Your task to perform on an android device: Show me productivity apps on the Play Store Image 0: 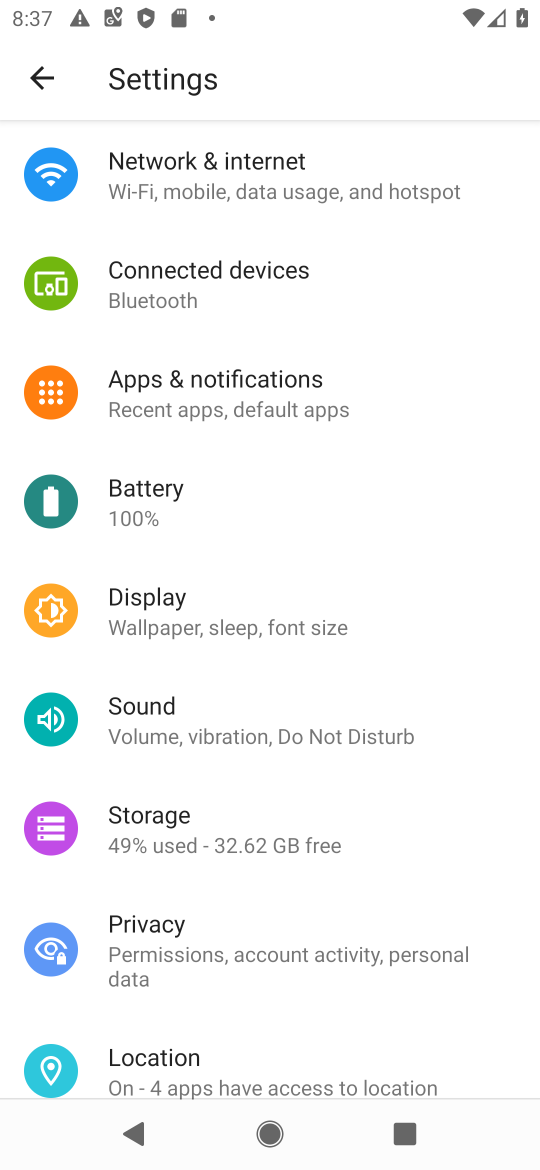
Step 0: press home button
Your task to perform on an android device: Show me productivity apps on the Play Store Image 1: 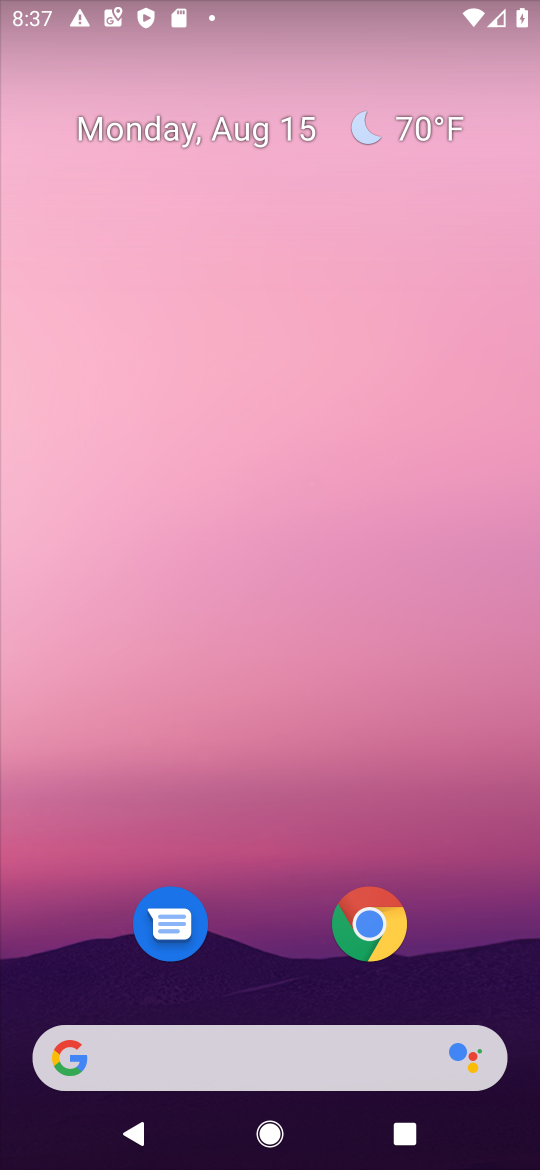
Step 1: drag from (493, 988) to (478, 156)
Your task to perform on an android device: Show me productivity apps on the Play Store Image 2: 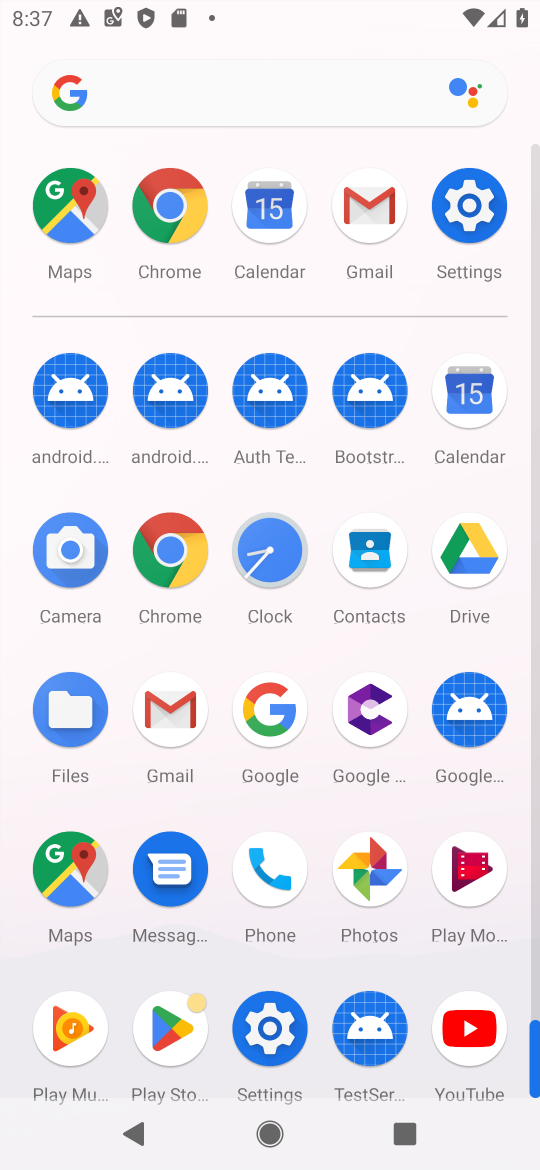
Step 2: click (173, 1026)
Your task to perform on an android device: Show me productivity apps on the Play Store Image 3: 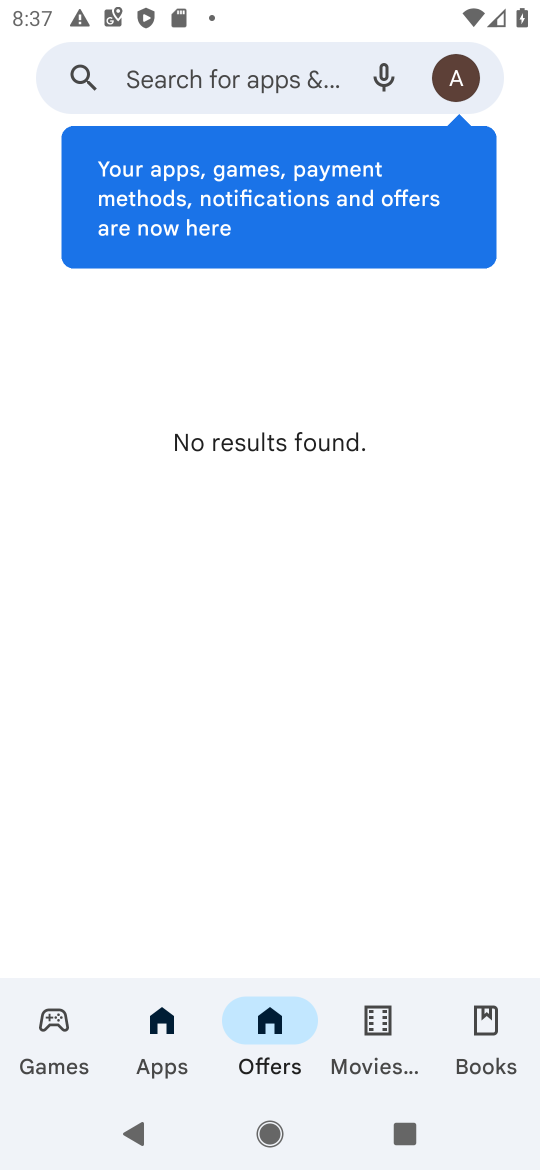
Step 3: click (140, 1041)
Your task to perform on an android device: Show me productivity apps on the Play Store Image 4: 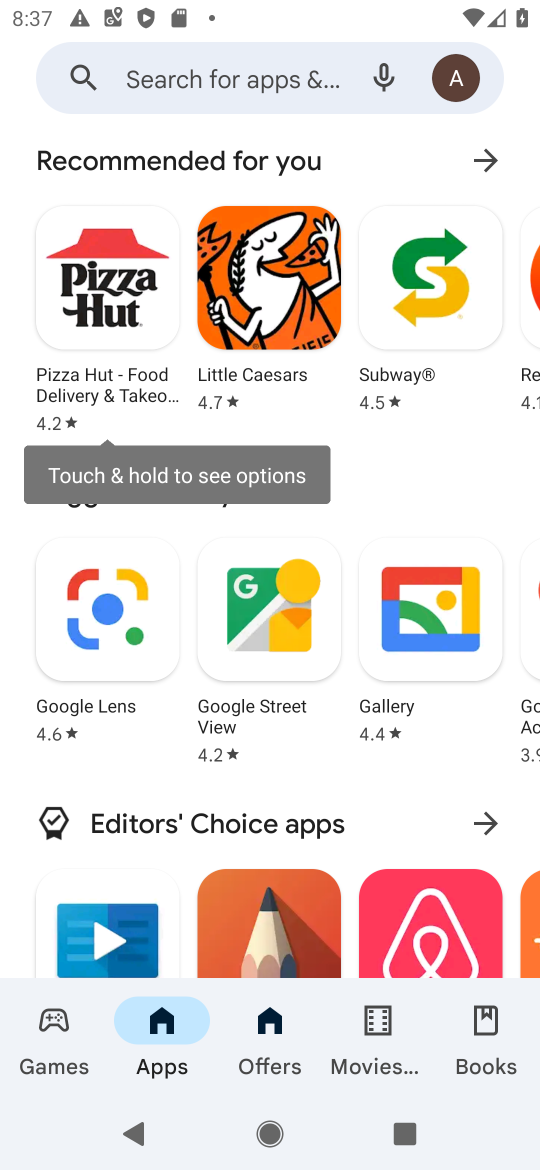
Step 4: drag from (353, 846) to (350, 939)
Your task to perform on an android device: Show me productivity apps on the Play Store Image 5: 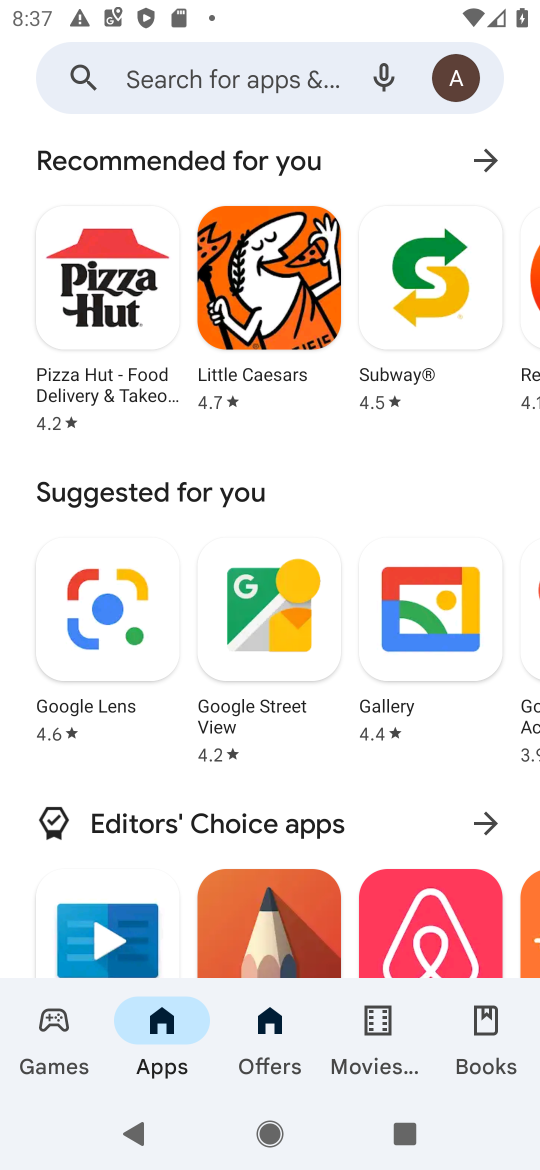
Step 5: drag from (361, 233) to (358, 540)
Your task to perform on an android device: Show me productivity apps on the Play Store Image 6: 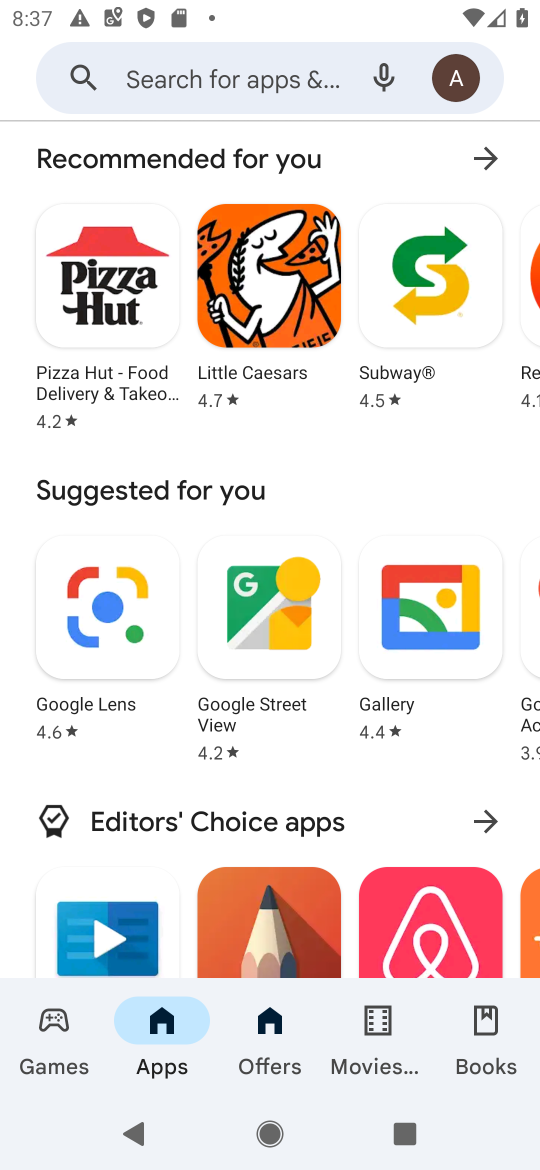
Step 6: drag from (340, 825) to (363, 322)
Your task to perform on an android device: Show me productivity apps on the Play Store Image 7: 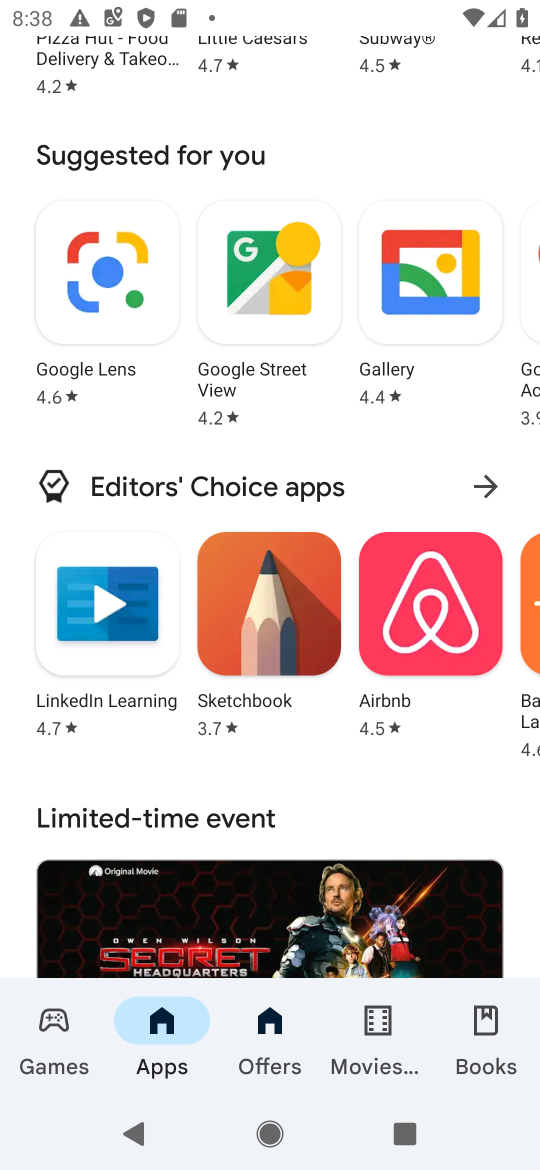
Step 7: drag from (334, 823) to (323, 144)
Your task to perform on an android device: Show me productivity apps on the Play Store Image 8: 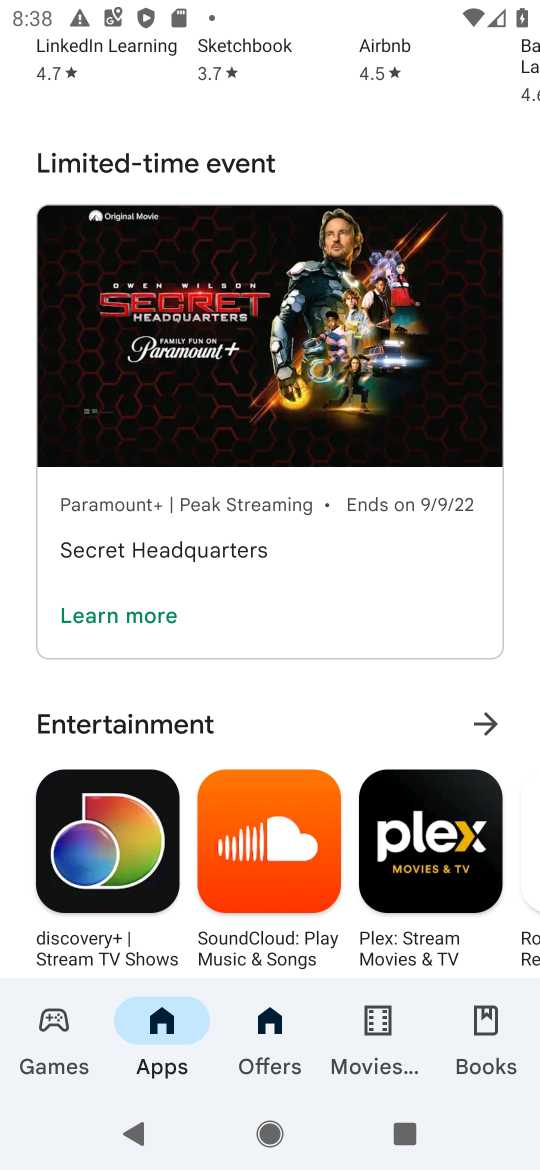
Step 8: drag from (353, 776) to (358, 86)
Your task to perform on an android device: Show me productivity apps on the Play Store Image 9: 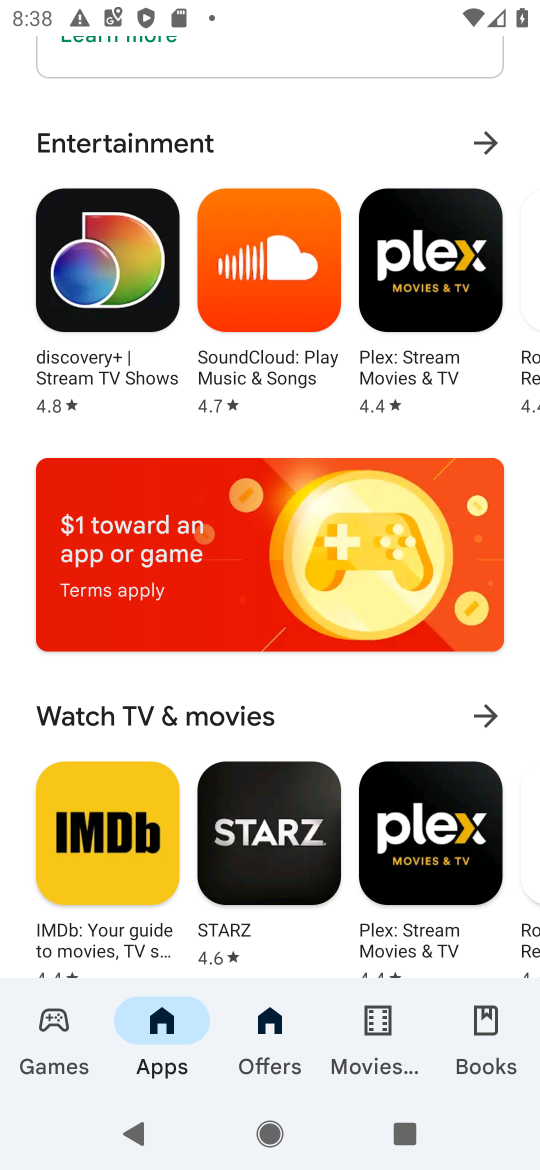
Step 9: drag from (348, 749) to (316, 148)
Your task to perform on an android device: Show me productivity apps on the Play Store Image 10: 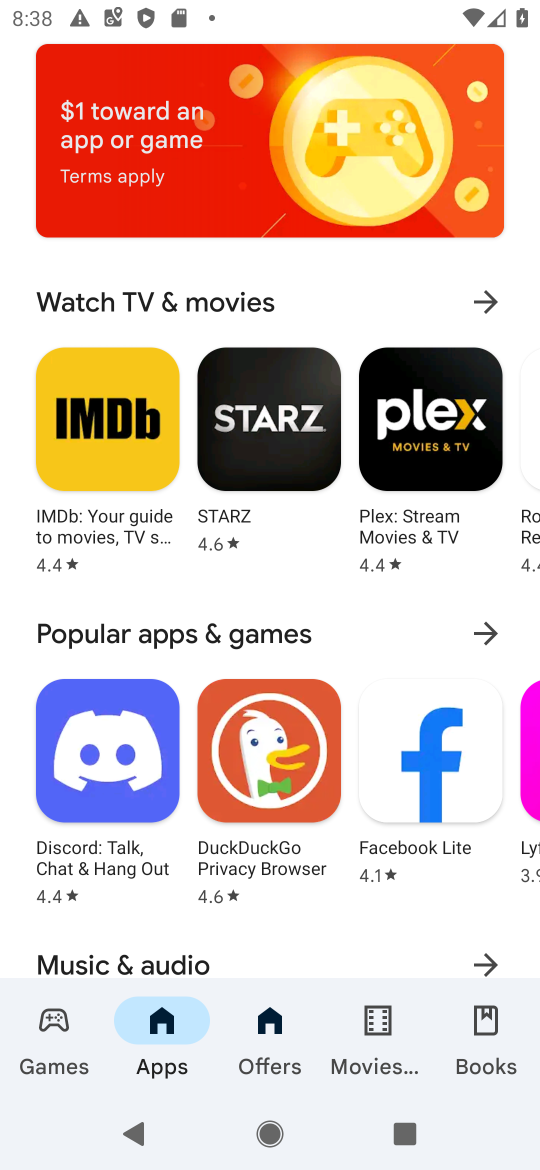
Step 10: drag from (353, 603) to (322, 148)
Your task to perform on an android device: Show me productivity apps on the Play Store Image 11: 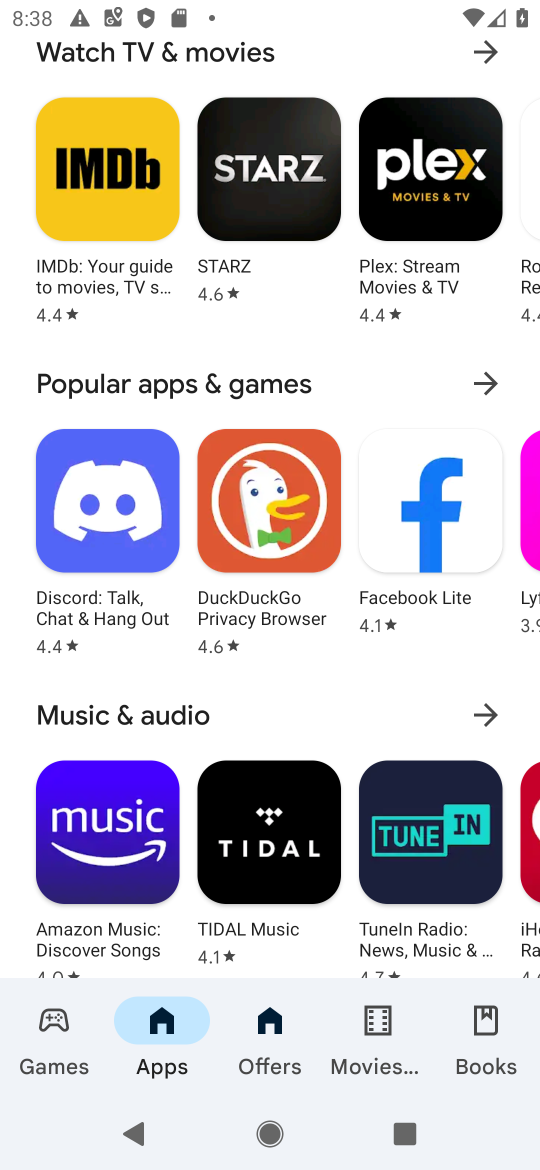
Step 11: drag from (352, 737) to (307, 218)
Your task to perform on an android device: Show me productivity apps on the Play Store Image 12: 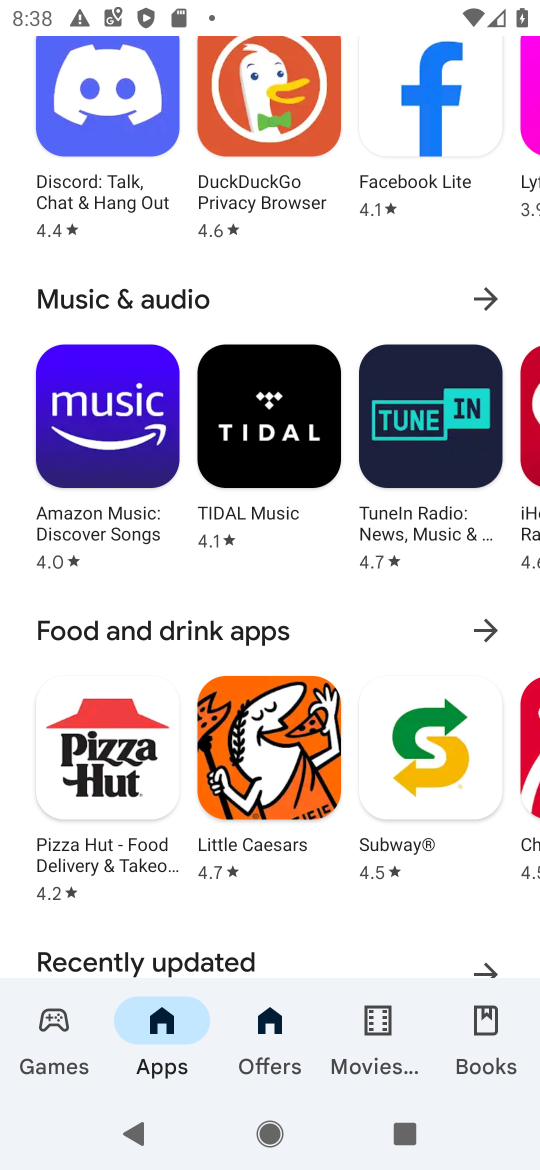
Step 12: drag from (350, 935) to (300, 504)
Your task to perform on an android device: Show me productivity apps on the Play Store Image 13: 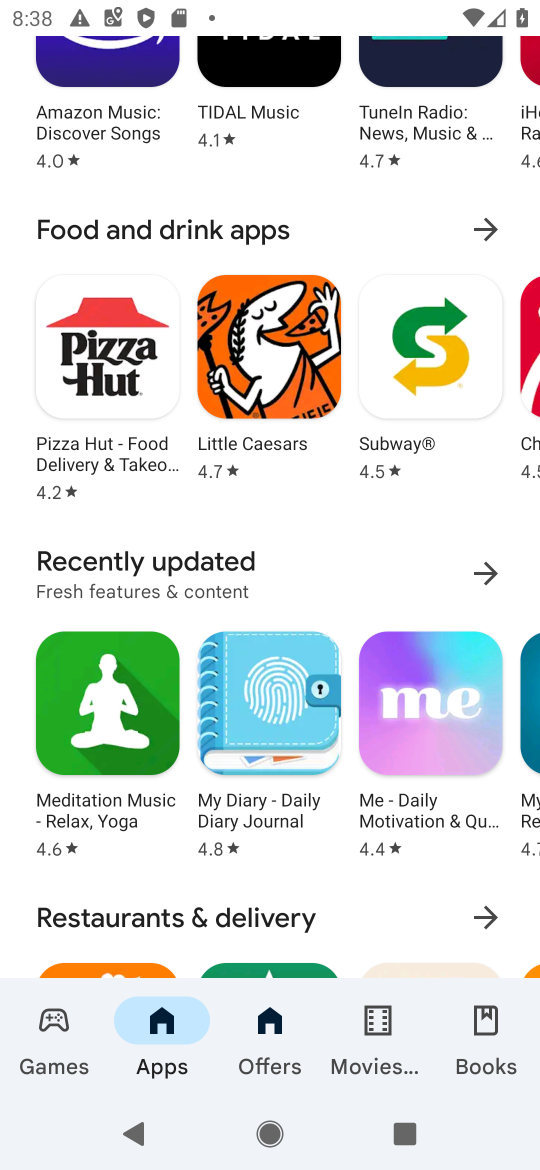
Step 13: drag from (349, 936) to (331, 195)
Your task to perform on an android device: Show me productivity apps on the Play Store Image 14: 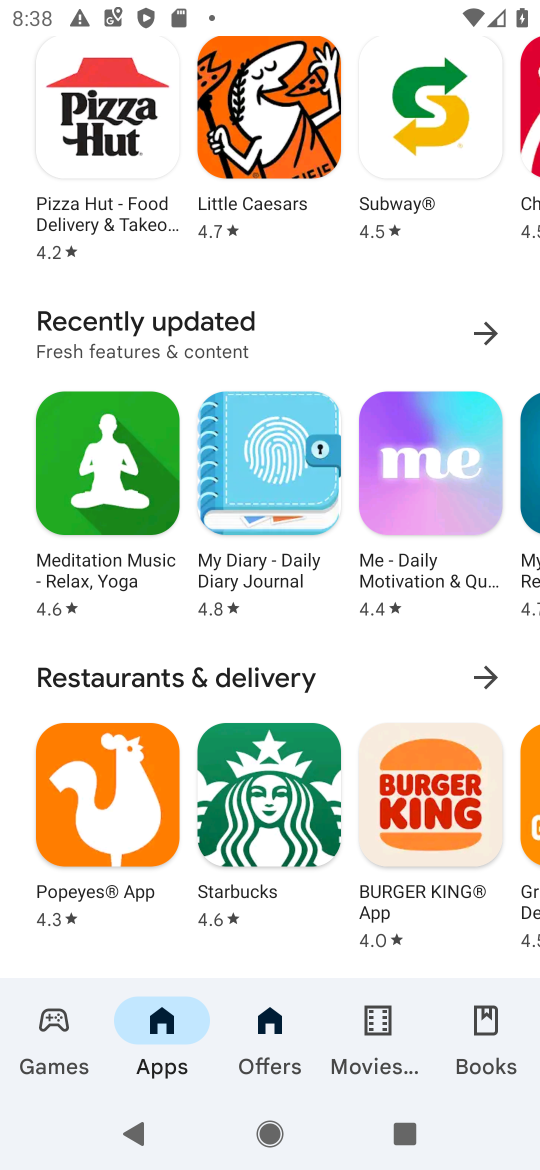
Step 14: drag from (327, 951) to (300, 151)
Your task to perform on an android device: Show me productivity apps on the Play Store Image 15: 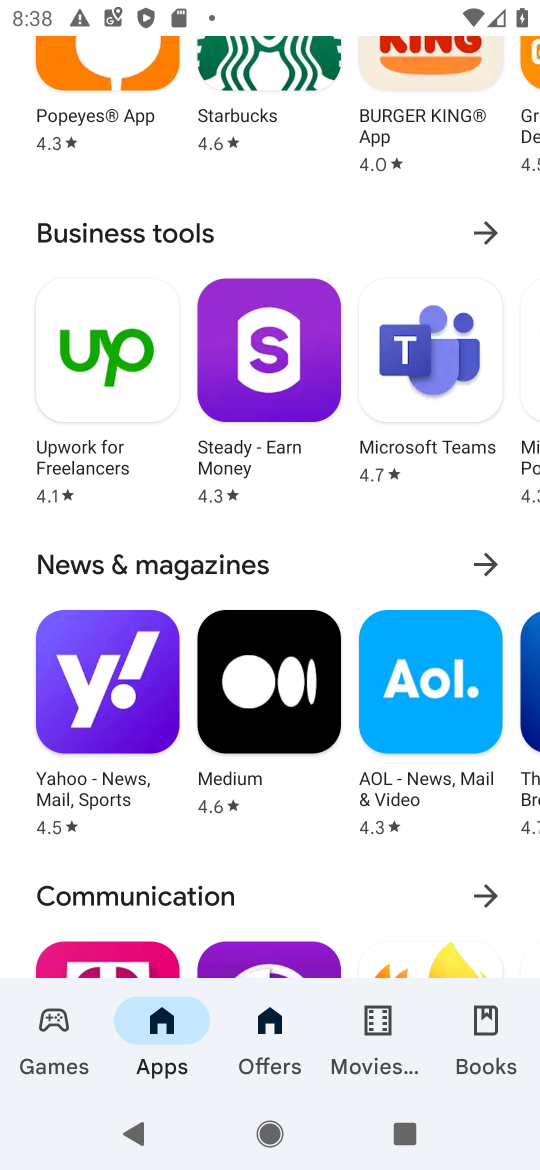
Step 15: drag from (357, 925) to (322, 93)
Your task to perform on an android device: Show me productivity apps on the Play Store Image 16: 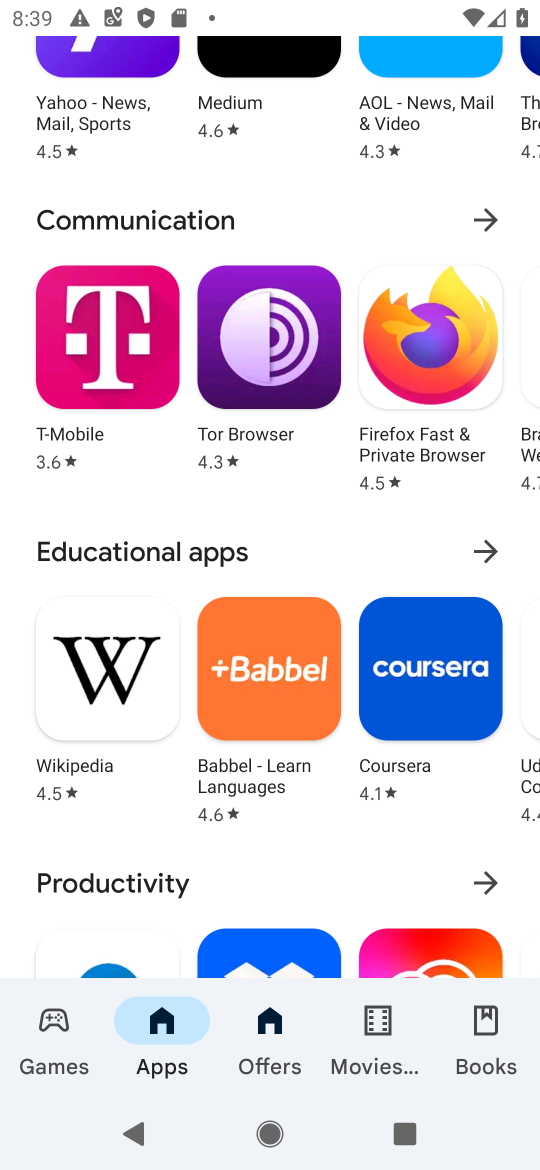
Step 16: click (479, 876)
Your task to perform on an android device: Show me productivity apps on the Play Store Image 17: 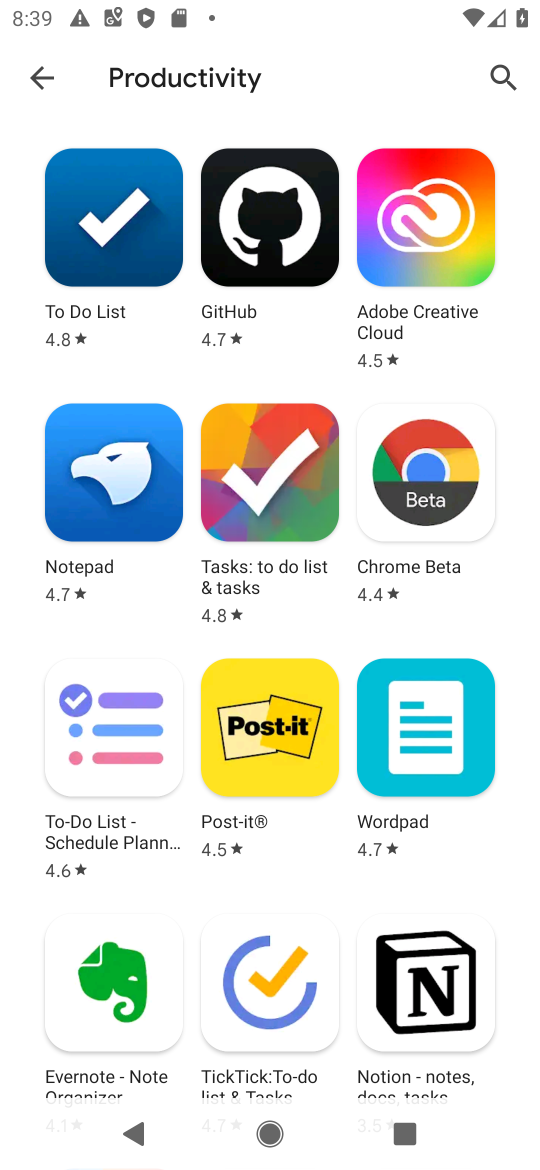
Step 17: task complete